Your task to perform on an android device: Open display settings Image 0: 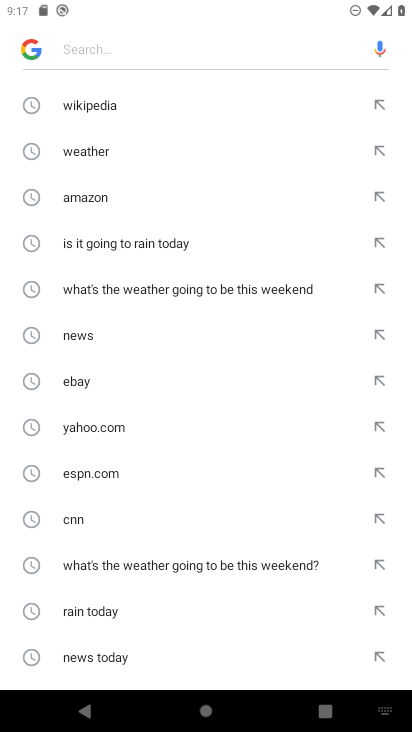
Step 0: press home button
Your task to perform on an android device: Open display settings Image 1: 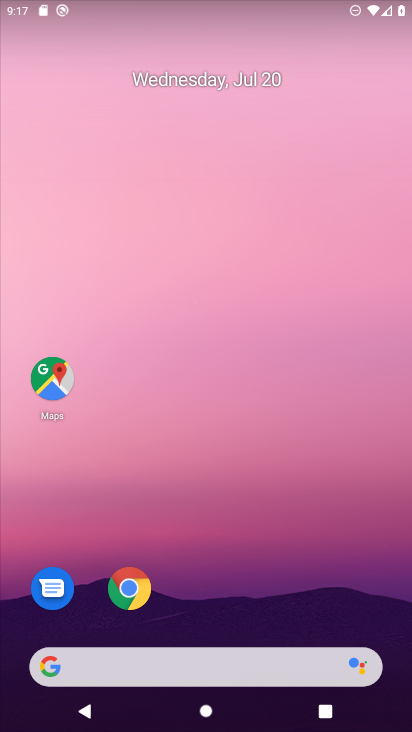
Step 1: drag from (215, 588) to (226, 161)
Your task to perform on an android device: Open display settings Image 2: 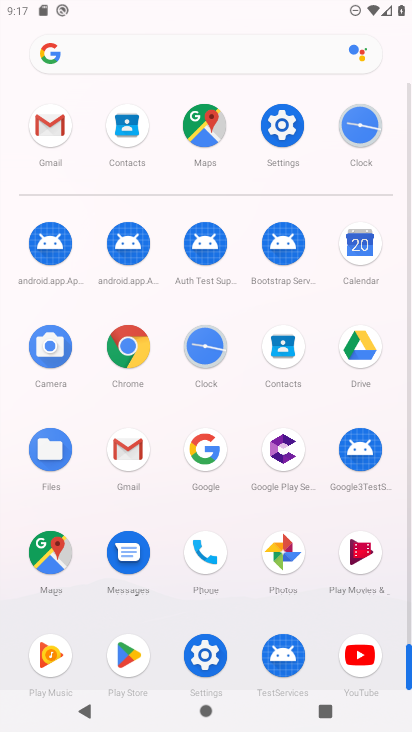
Step 2: click (284, 112)
Your task to perform on an android device: Open display settings Image 3: 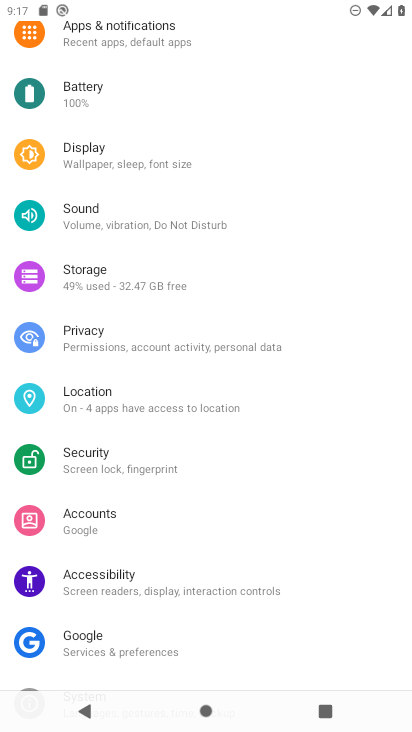
Step 3: click (107, 158)
Your task to perform on an android device: Open display settings Image 4: 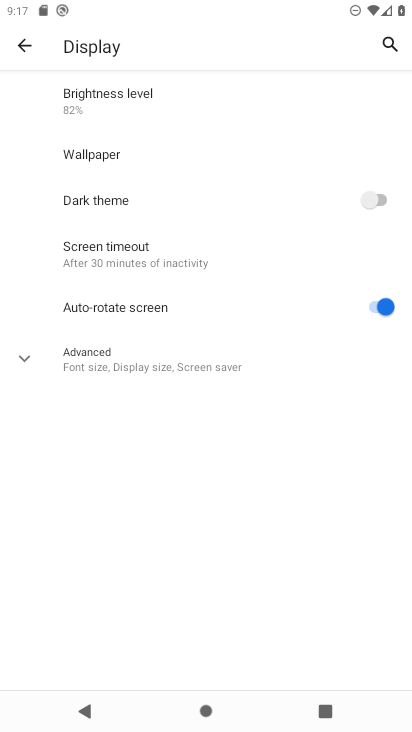
Step 4: task complete